Your task to perform on an android device: Open CNN.com Image 0: 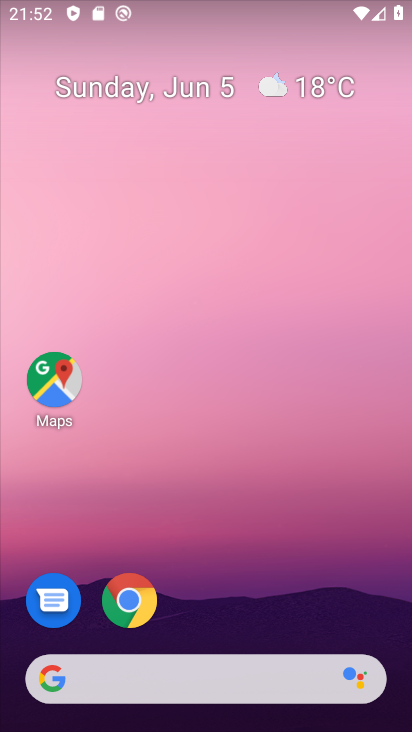
Step 0: click (134, 598)
Your task to perform on an android device: Open CNN.com Image 1: 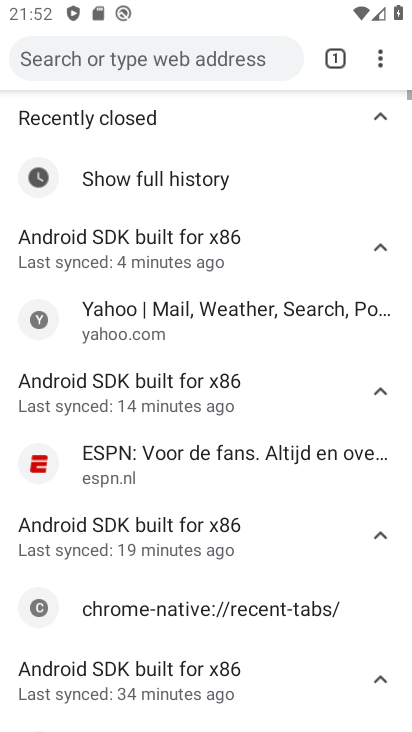
Step 1: click (219, 51)
Your task to perform on an android device: Open CNN.com Image 2: 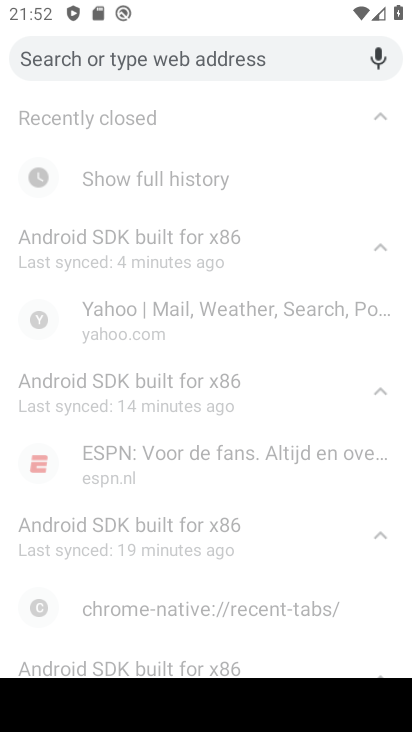
Step 2: type "cnn.com"
Your task to perform on an android device: Open CNN.com Image 3: 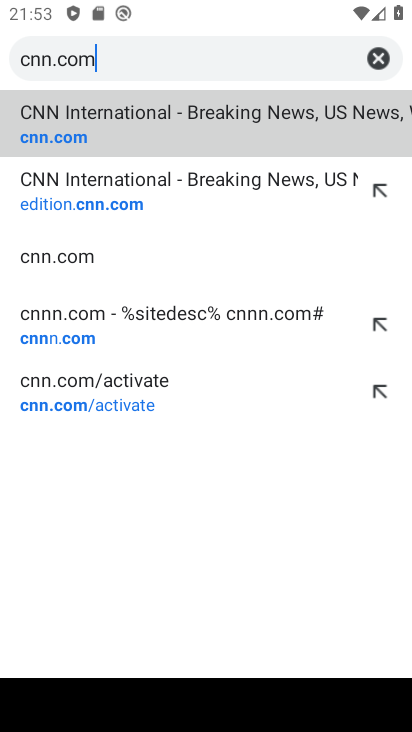
Step 3: click (77, 130)
Your task to perform on an android device: Open CNN.com Image 4: 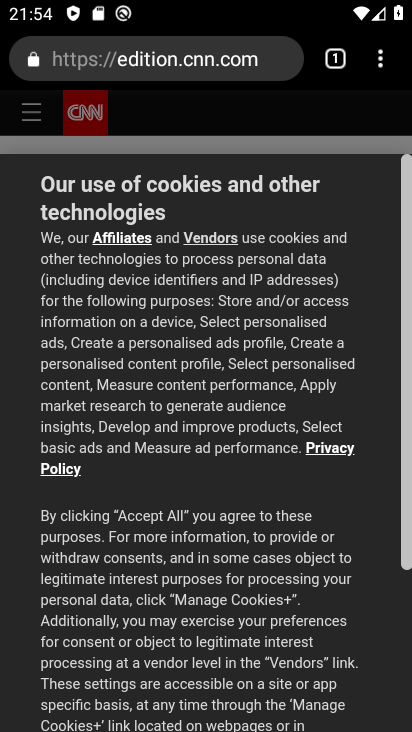
Step 4: task complete